Your task to perform on an android device: Open Reddit.com Image 0: 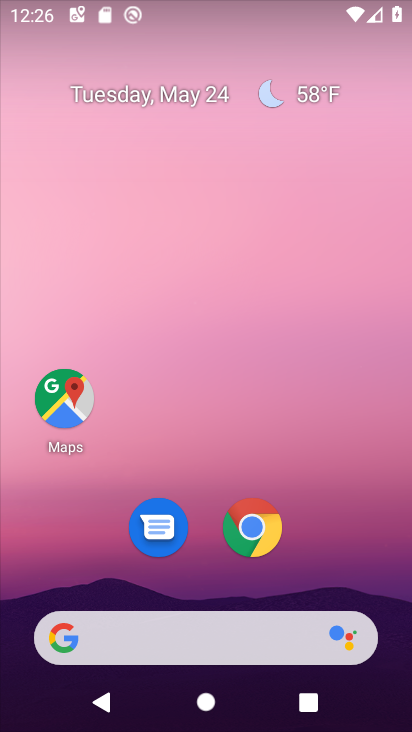
Step 0: click (242, 540)
Your task to perform on an android device: Open Reddit.com Image 1: 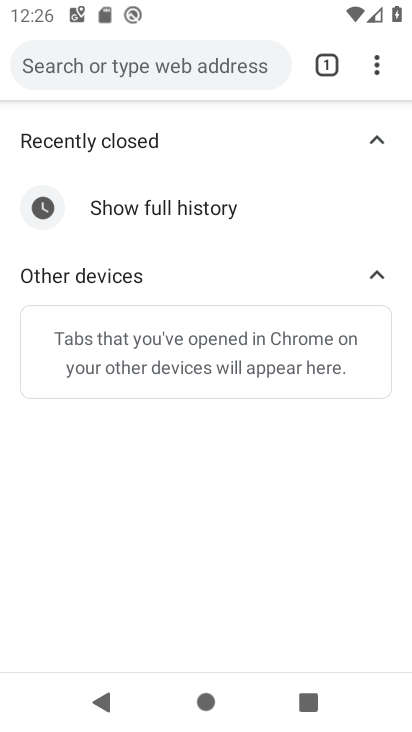
Step 1: click (152, 70)
Your task to perform on an android device: Open Reddit.com Image 2: 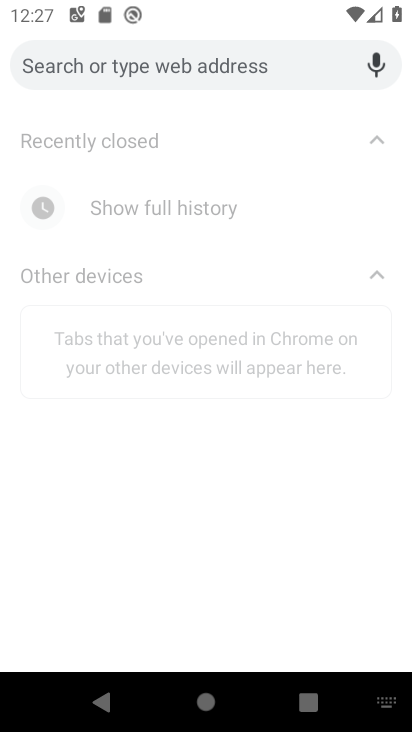
Step 2: type "reddit.com"
Your task to perform on an android device: Open Reddit.com Image 3: 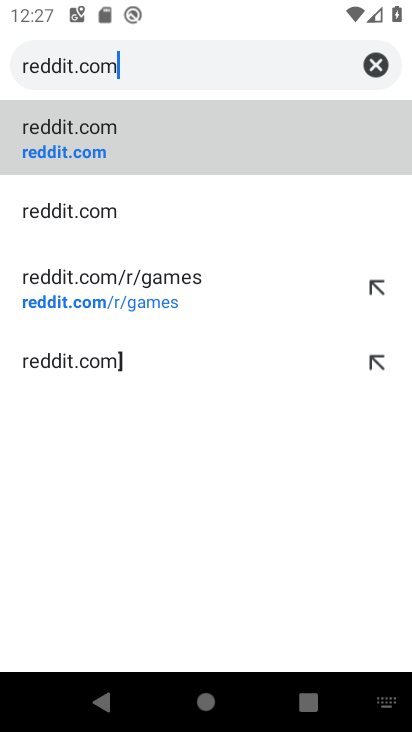
Step 3: click (85, 153)
Your task to perform on an android device: Open Reddit.com Image 4: 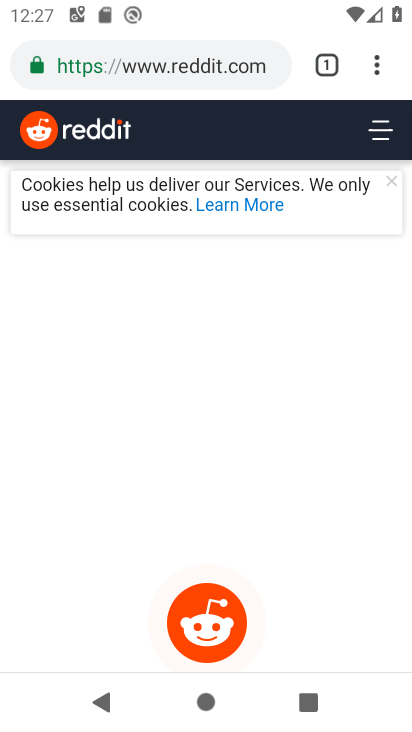
Step 4: task complete